Your task to perform on an android device: Open Google Image 0: 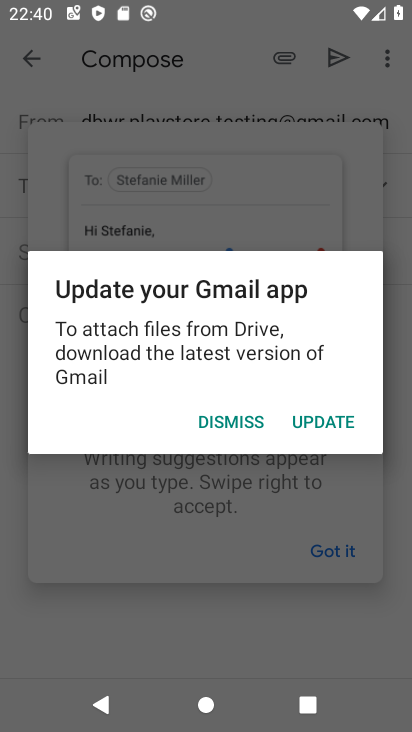
Step 0: press home button
Your task to perform on an android device: Open Google Image 1: 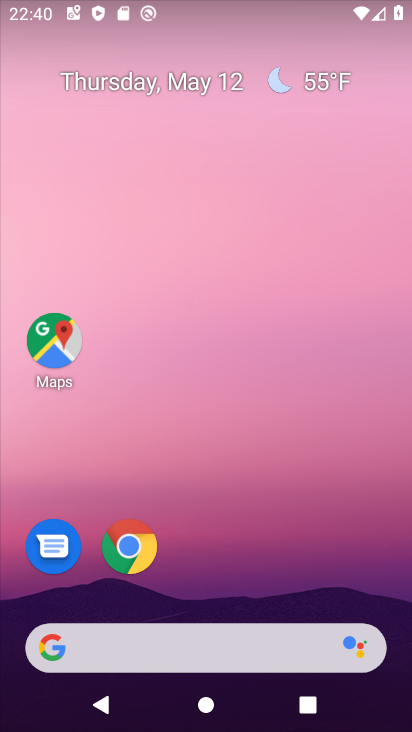
Step 1: drag from (252, 426) to (284, 257)
Your task to perform on an android device: Open Google Image 2: 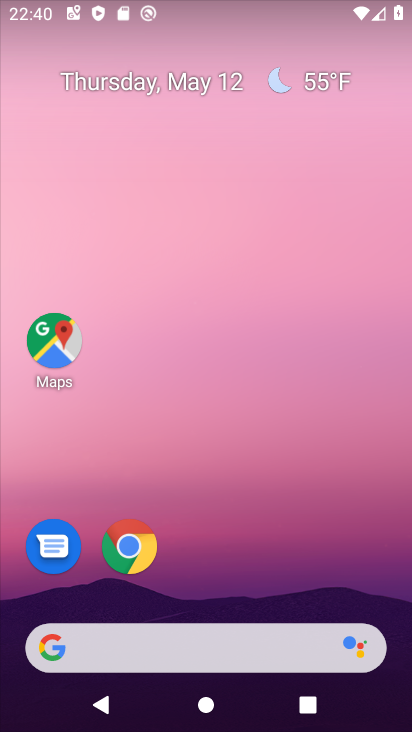
Step 2: drag from (208, 520) to (263, 143)
Your task to perform on an android device: Open Google Image 3: 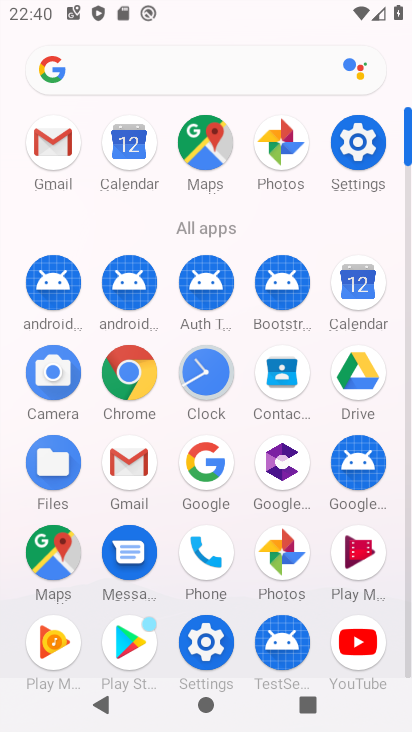
Step 3: click (202, 469)
Your task to perform on an android device: Open Google Image 4: 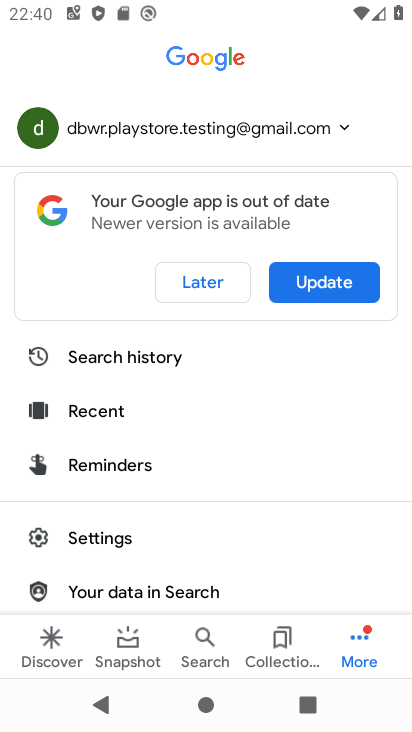
Step 4: drag from (312, 287) to (201, 287)
Your task to perform on an android device: Open Google Image 5: 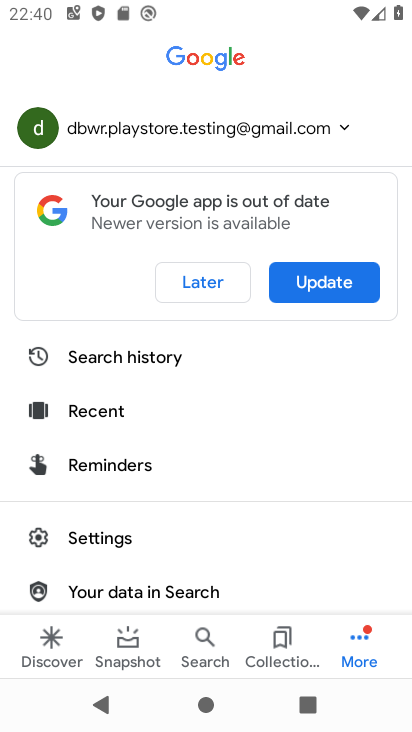
Step 5: click (206, 278)
Your task to perform on an android device: Open Google Image 6: 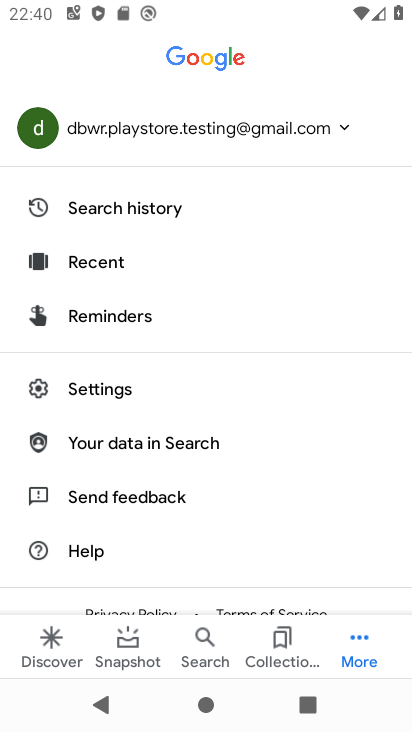
Step 6: task complete